Your task to perform on an android device: Open Google Chrome and open the bookmarks view Image 0: 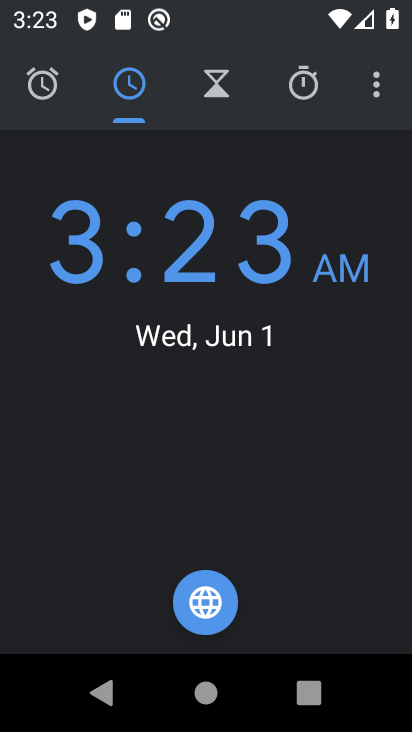
Step 0: press home button
Your task to perform on an android device: Open Google Chrome and open the bookmarks view Image 1: 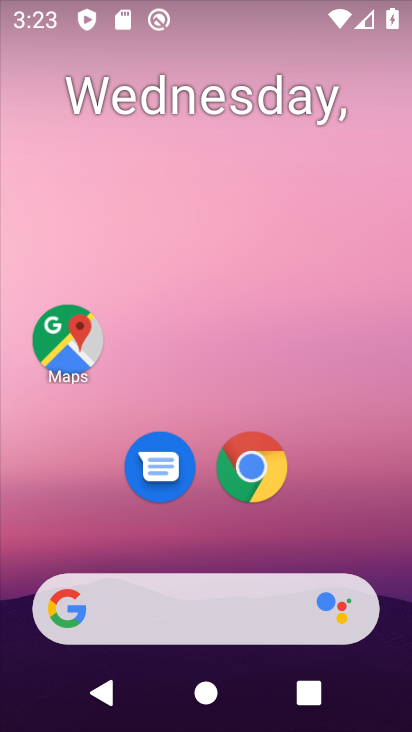
Step 1: click (260, 468)
Your task to perform on an android device: Open Google Chrome and open the bookmarks view Image 2: 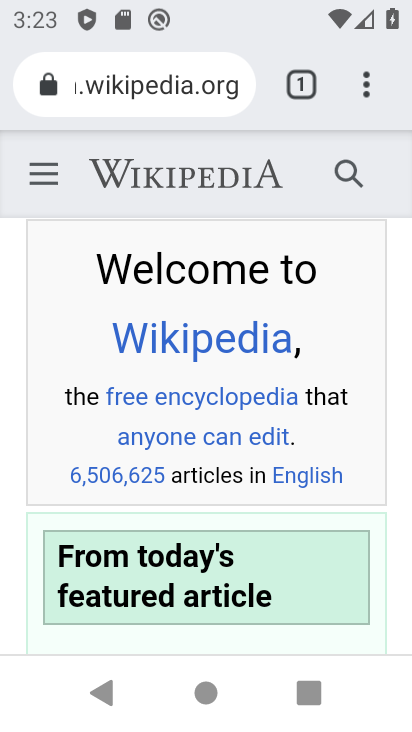
Step 2: click (363, 80)
Your task to perform on an android device: Open Google Chrome and open the bookmarks view Image 3: 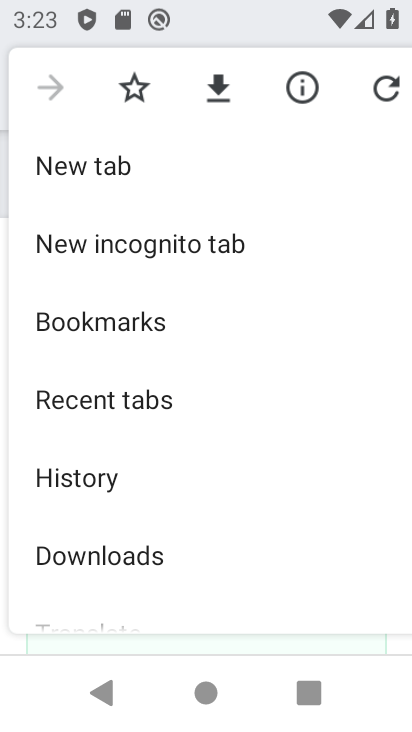
Step 3: click (133, 342)
Your task to perform on an android device: Open Google Chrome and open the bookmarks view Image 4: 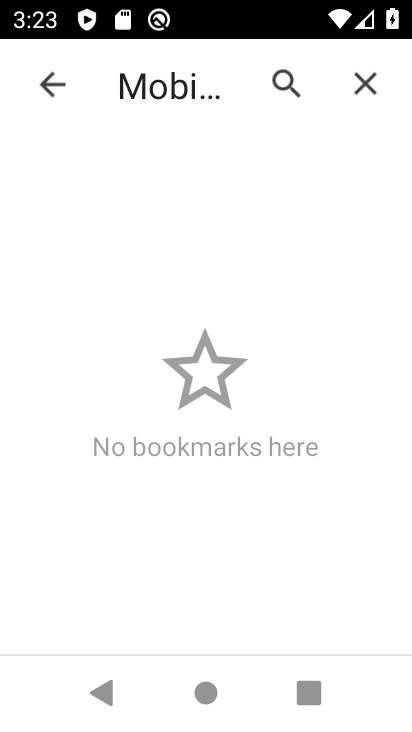
Step 4: task complete